Your task to perform on an android device: Open internet settings Image 0: 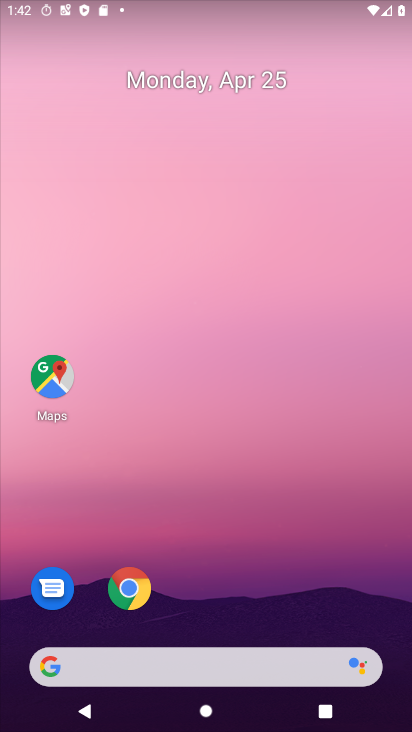
Step 0: drag from (240, 438) to (230, 110)
Your task to perform on an android device: Open internet settings Image 1: 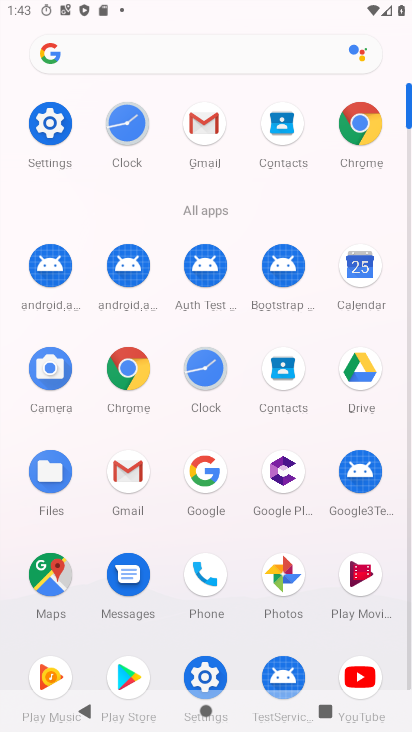
Step 1: click (203, 671)
Your task to perform on an android device: Open internet settings Image 2: 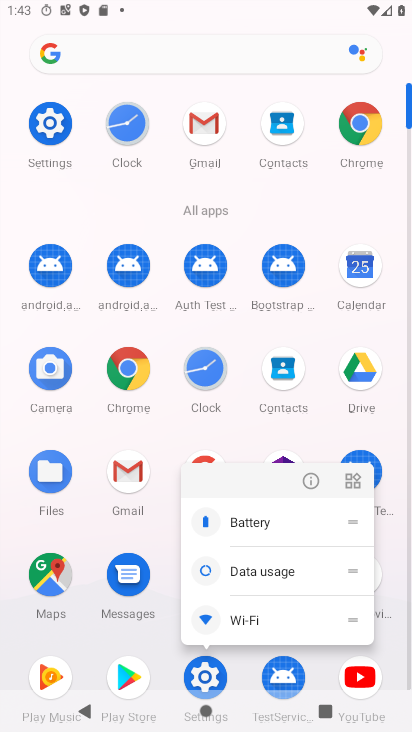
Step 2: click (318, 485)
Your task to perform on an android device: Open internet settings Image 3: 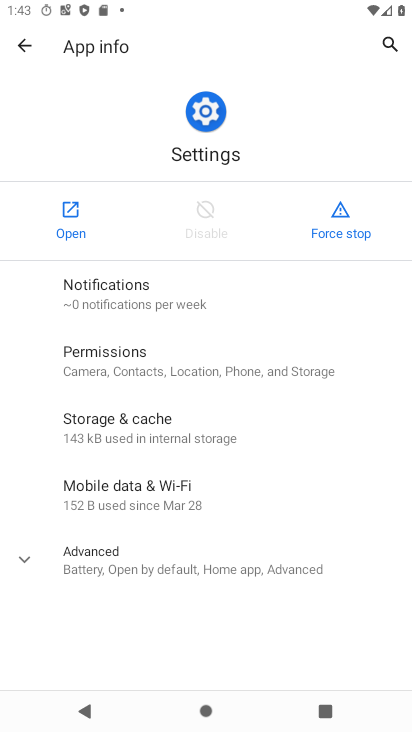
Step 3: click (79, 226)
Your task to perform on an android device: Open internet settings Image 4: 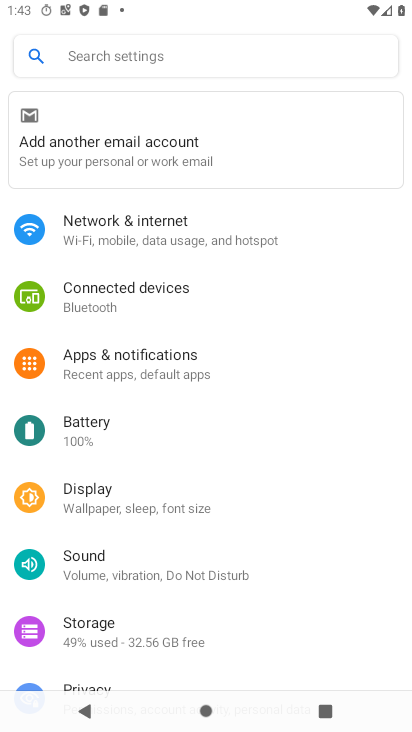
Step 4: click (172, 247)
Your task to perform on an android device: Open internet settings Image 5: 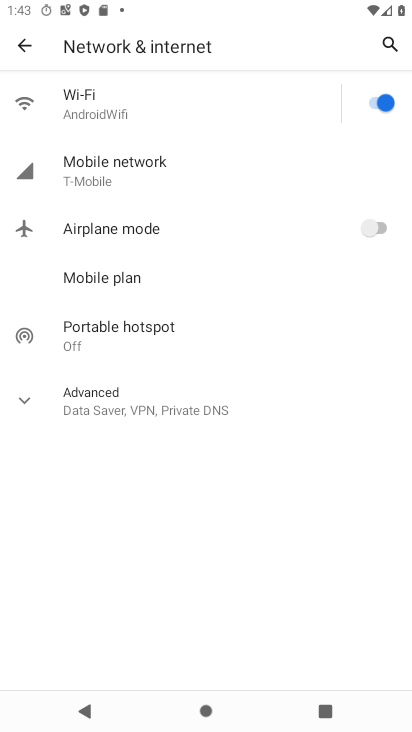
Step 5: task complete